Your task to perform on an android device: Go to Google Image 0: 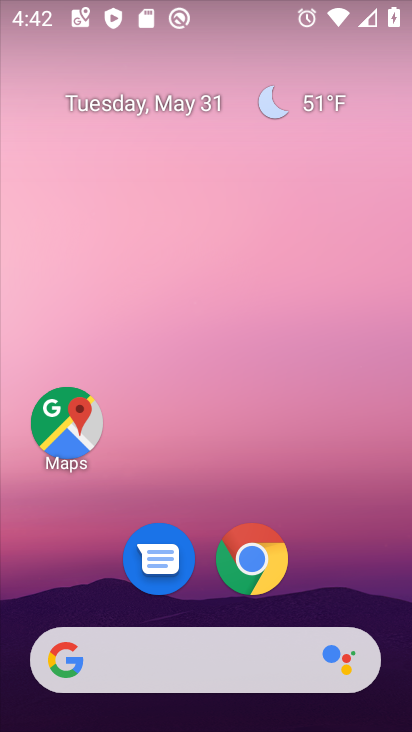
Step 0: drag from (336, 591) to (367, 37)
Your task to perform on an android device: Go to Google Image 1: 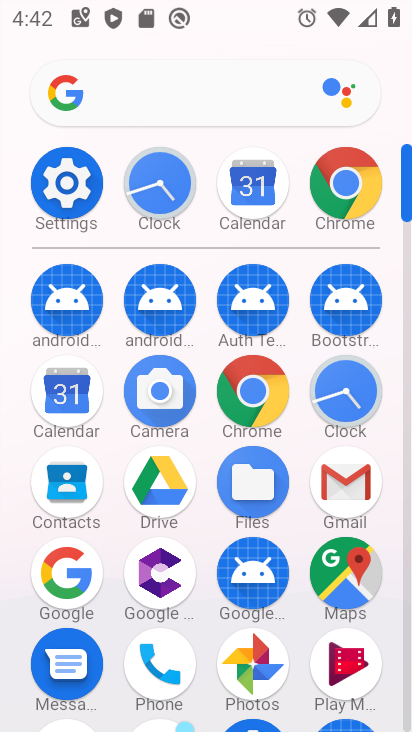
Step 1: click (76, 561)
Your task to perform on an android device: Go to Google Image 2: 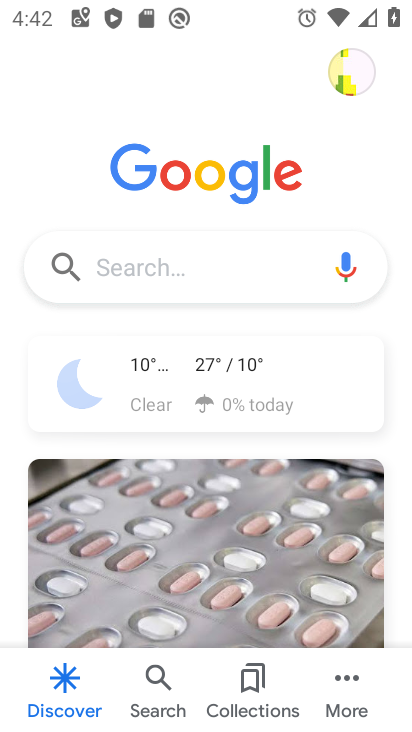
Step 2: task complete